Your task to perform on an android device: see tabs open on other devices in the chrome app Image 0: 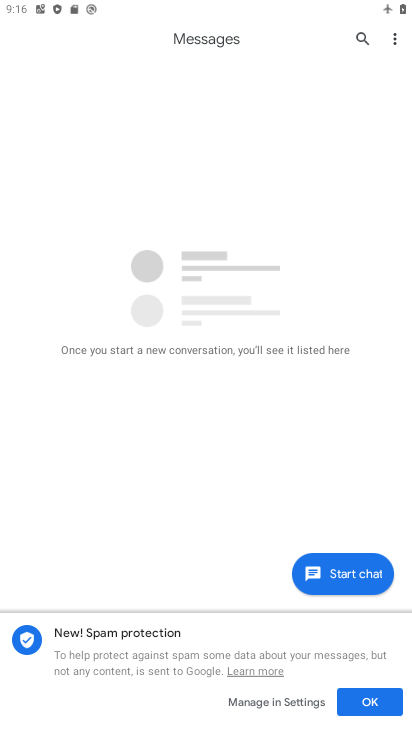
Step 0: press home button
Your task to perform on an android device: see tabs open on other devices in the chrome app Image 1: 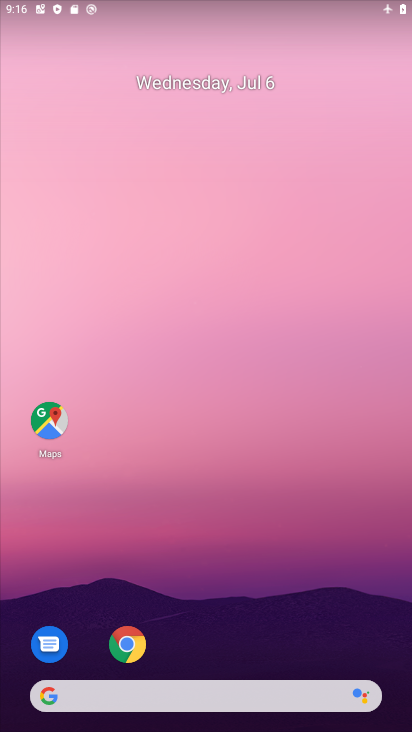
Step 1: drag from (215, 651) to (250, 179)
Your task to perform on an android device: see tabs open on other devices in the chrome app Image 2: 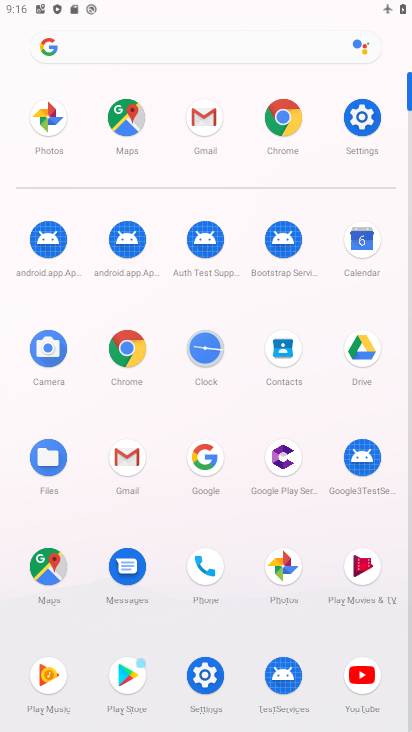
Step 2: click (123, 336)
Your task to perform on an android device: see tabs open on other devices in the chrome app Image 3: 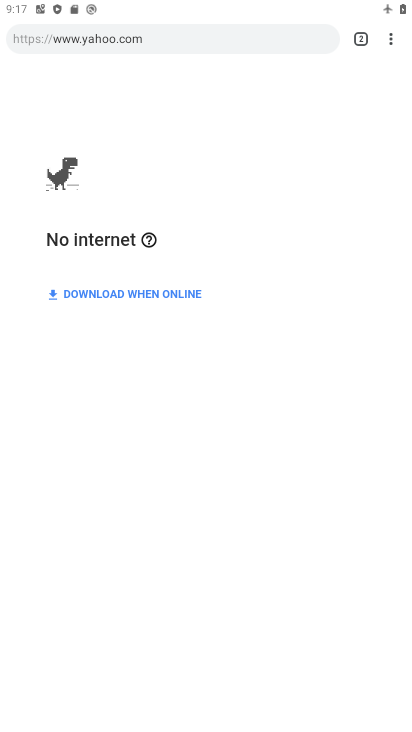
Step 3: click (386, 48)
Your task to perform on an android device: see tabs open on other devices in the chrome app Image 4: 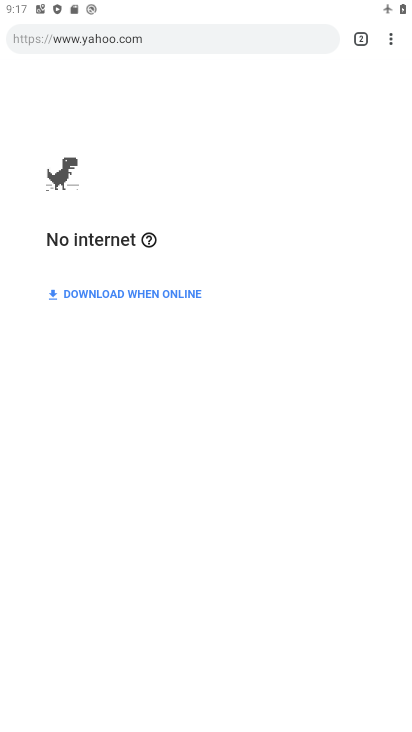
Step 4: click (389, 42)
Your task to perform on an android device: see tabs open on other devices in the chrome app Image 5: 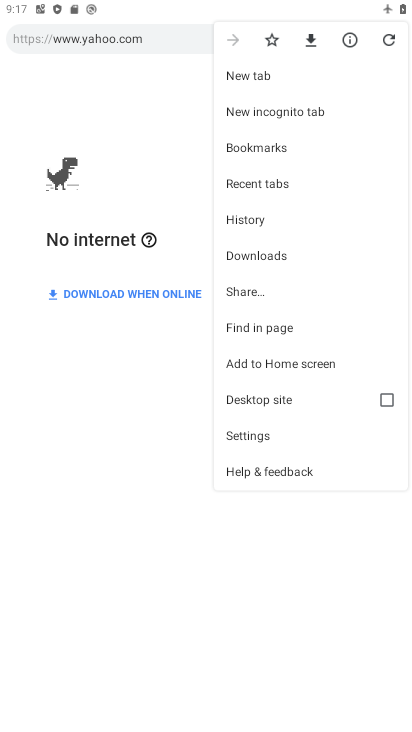
Step 5: click (286, 189)
Your task to perform on an android device: see tabs open on other devices in the chrome app Image 6: 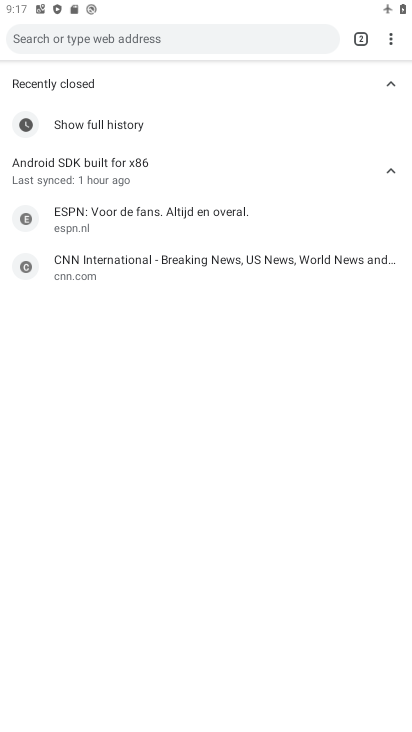
Step 6: task complete